Your task to perform on an android device: What's the weather today? Image 0: 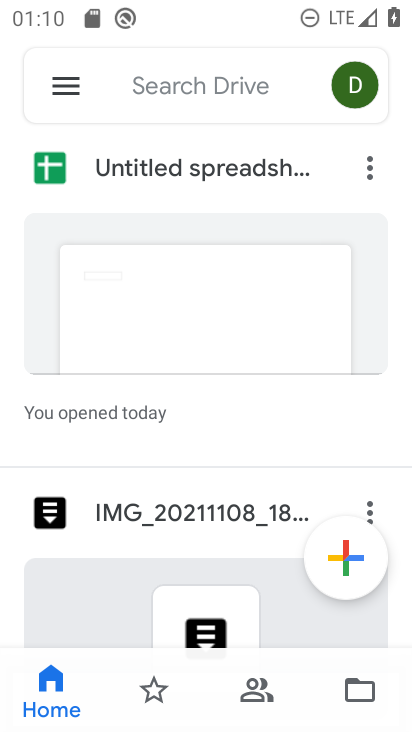
Step 0: press home button
Your task to perform on an android device: What's the weather today? Image 1: 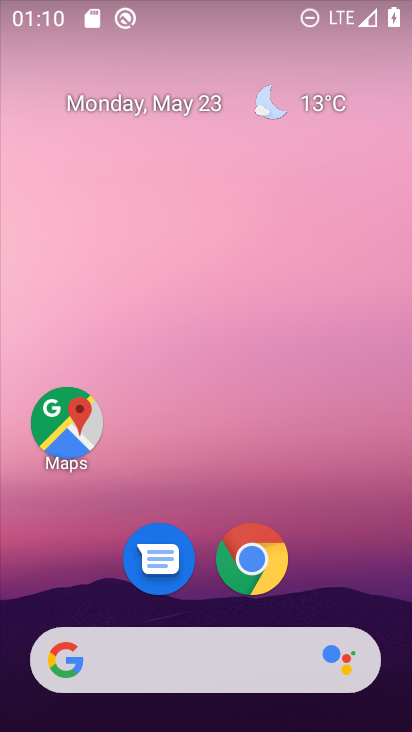
Step 1: click (313, 107)
Your task to perform on an android device: What's the weather today? Image 2: 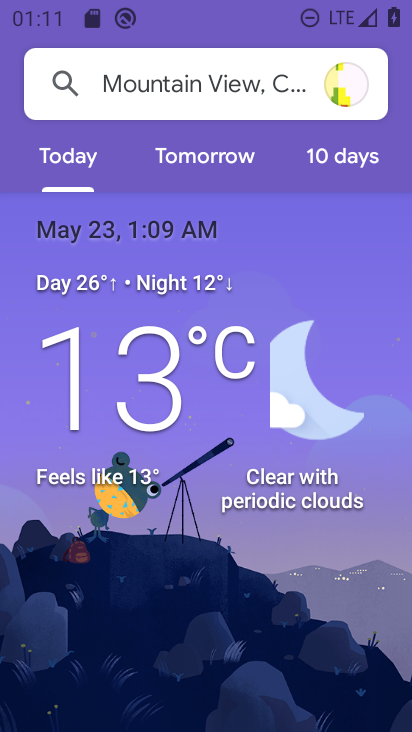
Step 2: task complete